Your task to perform on an android device: open app "PUBG MOBILE" (install if not already installed) Image 0: 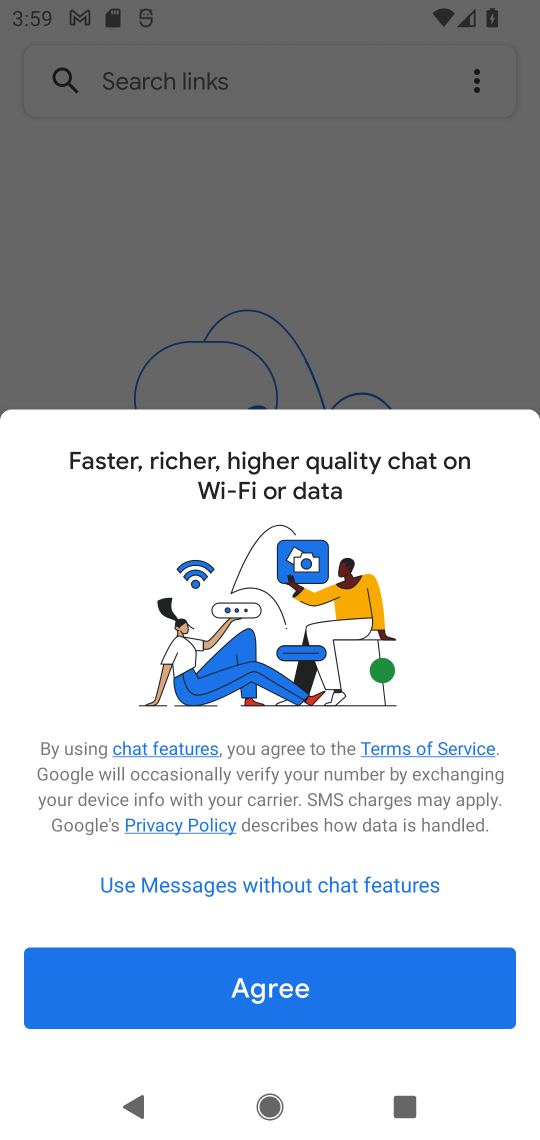
Step 0: press home button
Your task to perform on an android device: open app "PUBG MOBILE" (install if not already installed) Image 1: 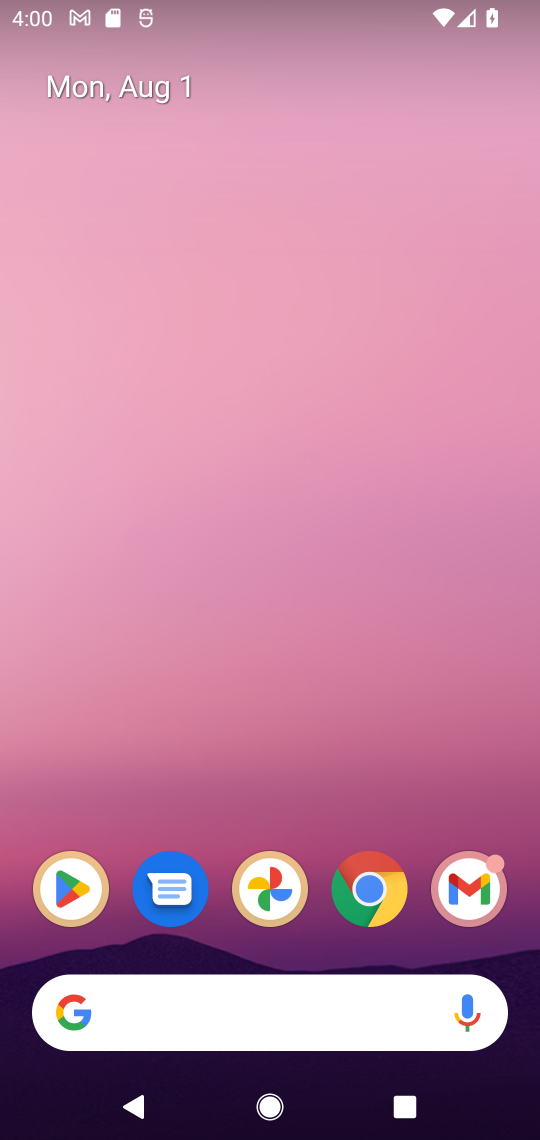
Step 1: click (44, 880)
Your task to perform on an android device: open app "PUBG MOBILE" (install if not already installed) Image 2: 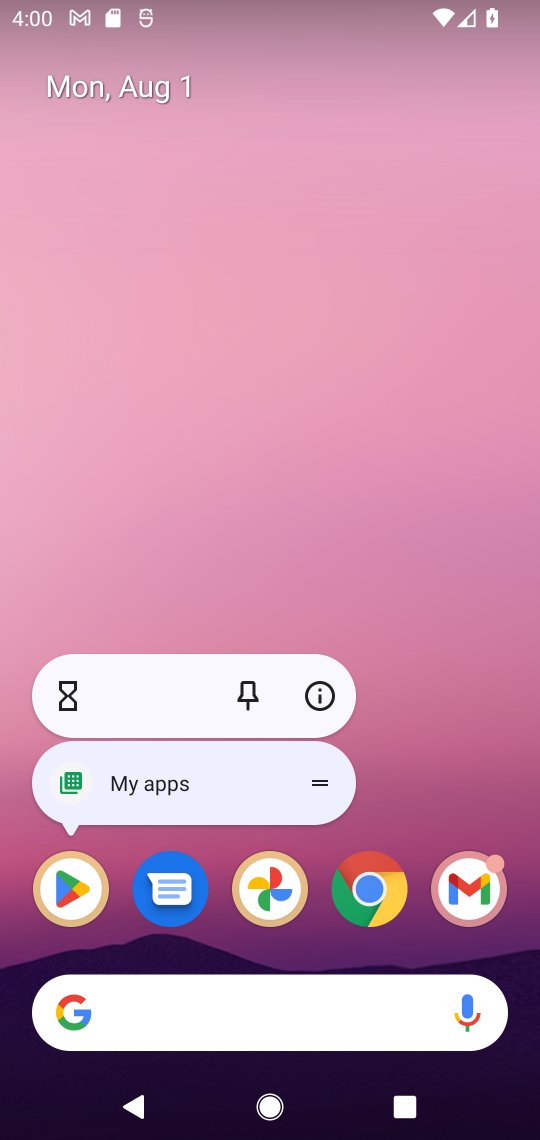
Step 2: click (70, 863)
Your task to perform on an android device: open app "PUBG MOBILE" (install if not already installed) Image 3: 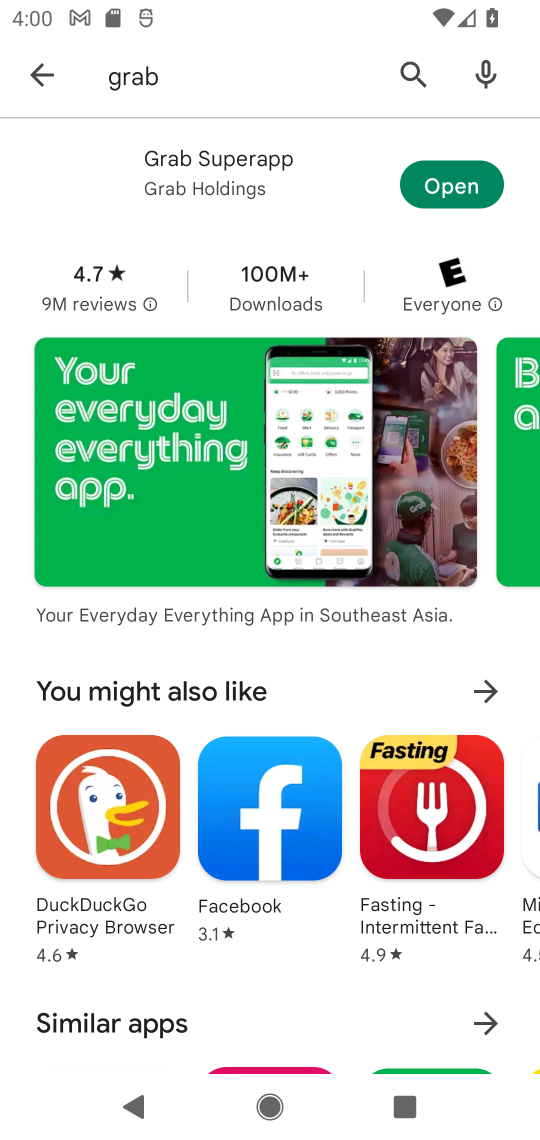
Step 3: click (411, 72)
Your task to perform on an android device: open app "PUBG MOBILE" (install if not already installed) Image 4: 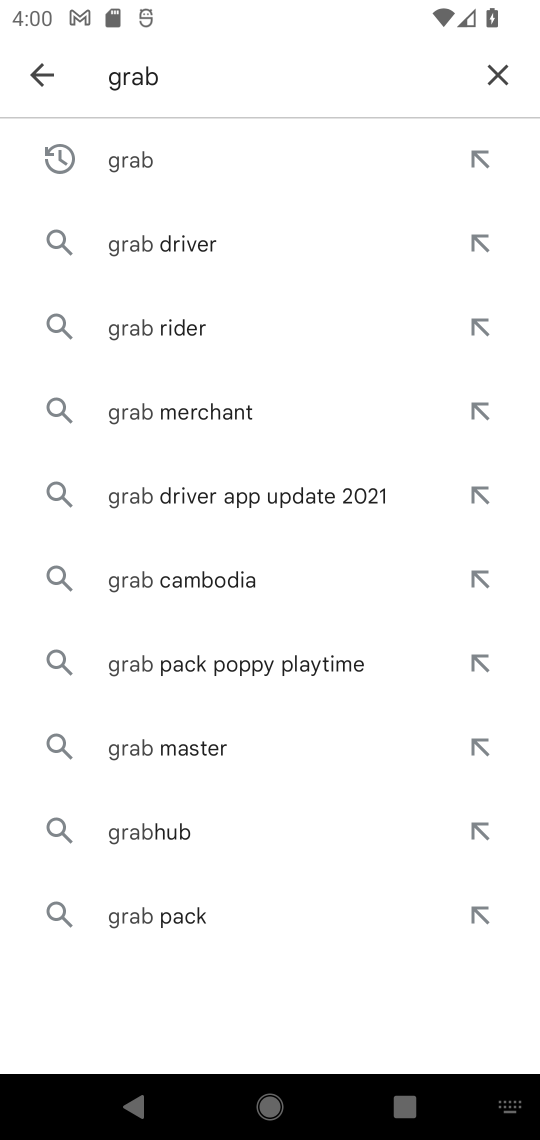
Step 4: click (491, 83)
Your task to perform on an android device: open app "PUBG MOBILE" (install if not already installed) Image 5: 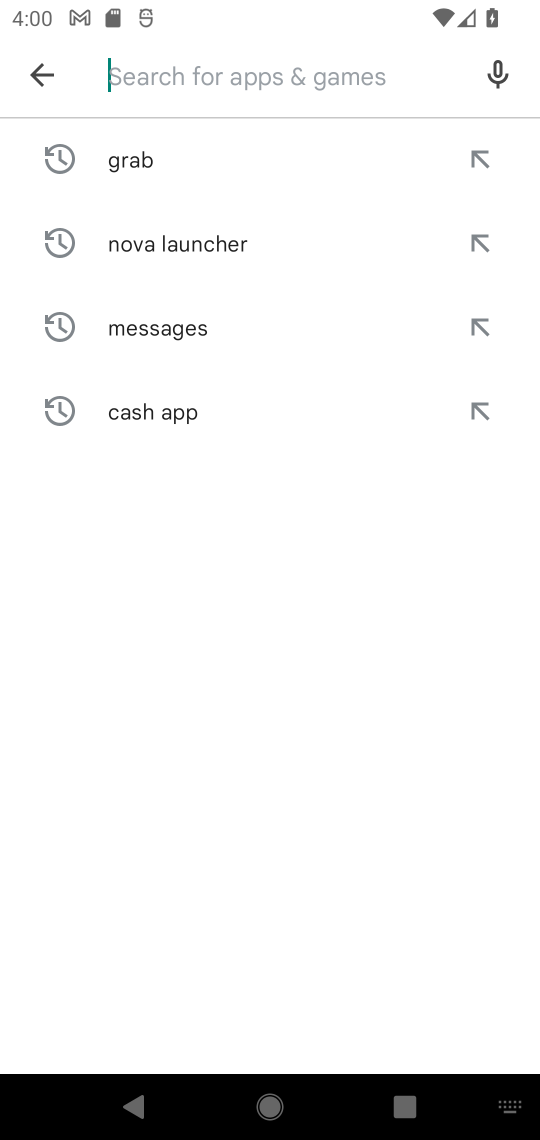
Step 5: type "pubg mobile"
Your task to perform on an android device: open app "PUBG MOBILE" (install if not already installed) Image 6: 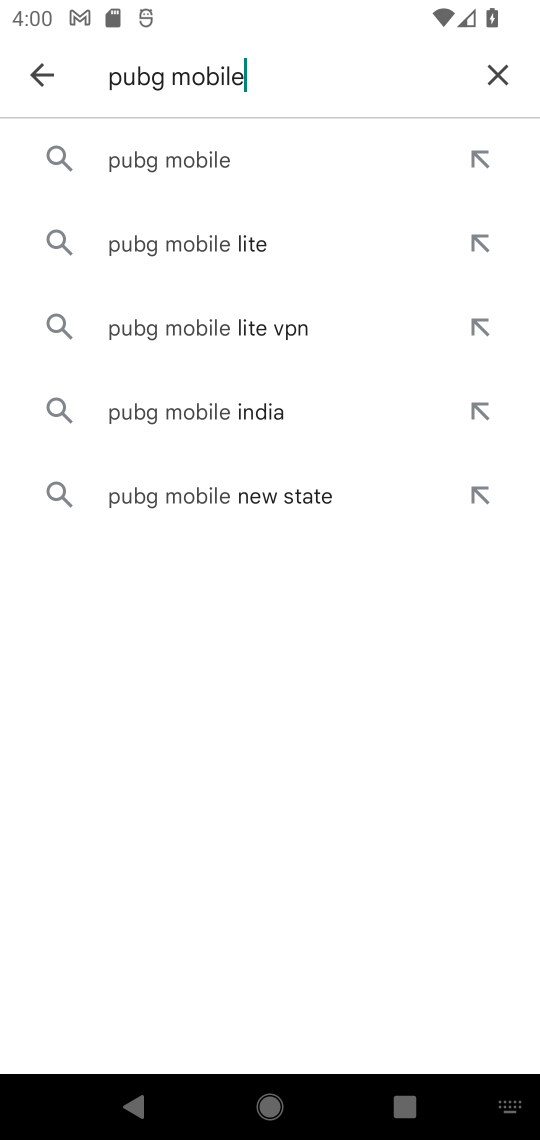
Step 6: click (154, 185)
Your task to perform on an android device: open app "PUBG MOBILE" (install if not already installed) Image 7: 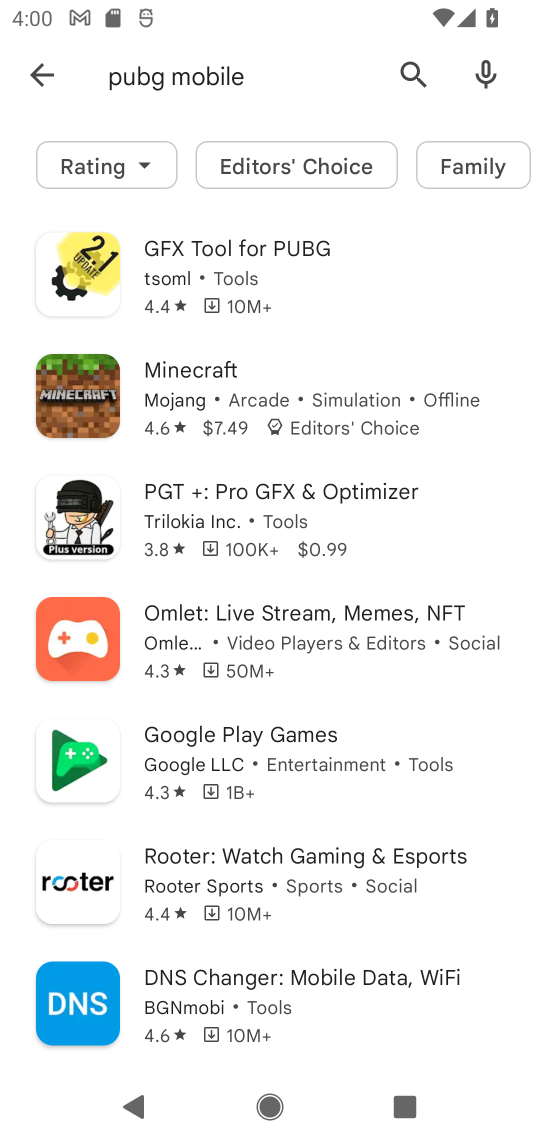
Step 7: task complete